Your task to perform on an android device: clear history in the chrome app Image 0: 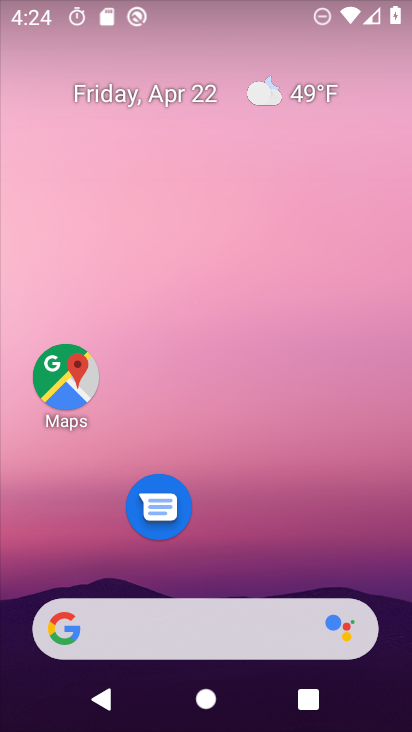
Step 0: drag from (179, 538) to (277, 24)
Your task to perform on an android device: clear history in the chrome app Image 1: 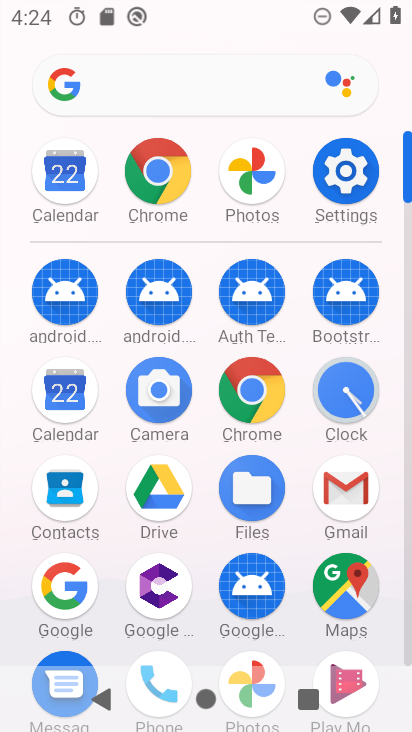
Step 1: click (165, 174)
Your task to perform on an android device: clear history in the chrome app Image 2: 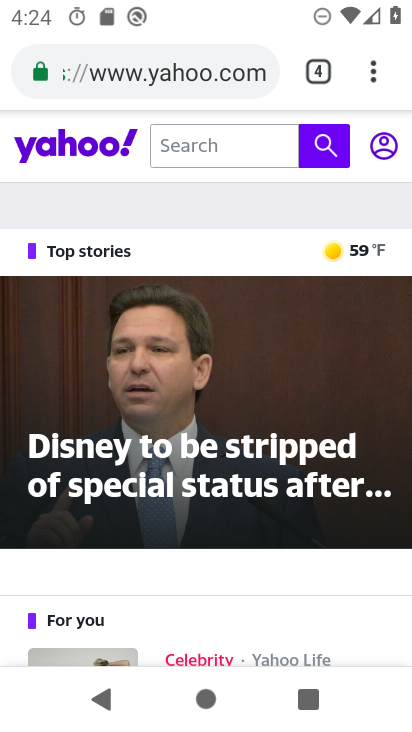
Step 2: drag from (368, 69) to (122, 501)
Your task to perform on an android device: clear history in the chrome app Image 3: 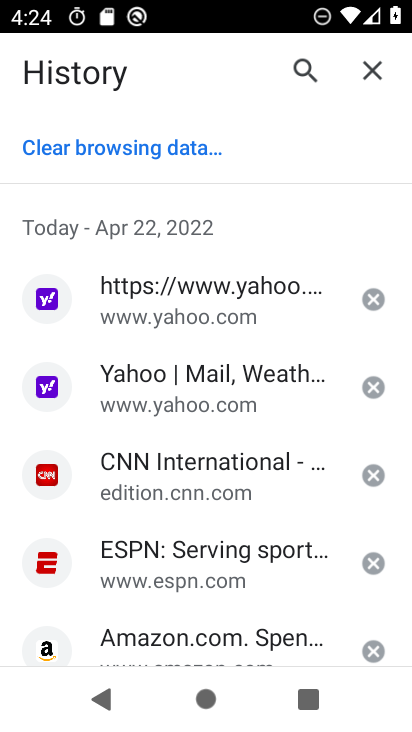
Step 3: click (126, 145)
Your task to perform on an android device: clear history in the chrome app Image 4: 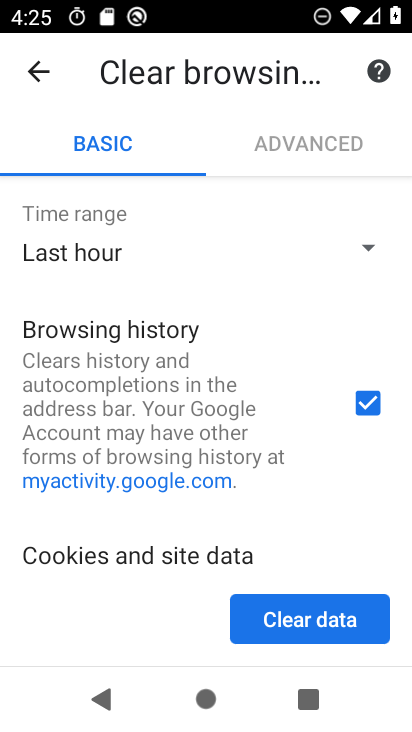
Step 4: click (275, 625)
Your task to perform on an android device: clear history in the chrome app Image 5: 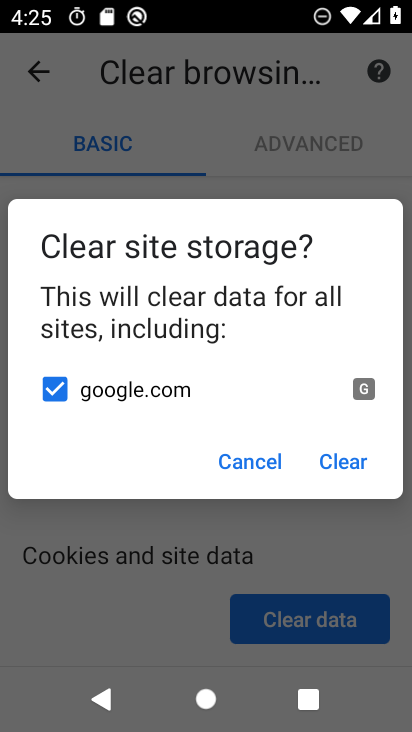
Step 5: click (353, 469)
Your task to perform on an android device: clear history in the chrome app Image 6: 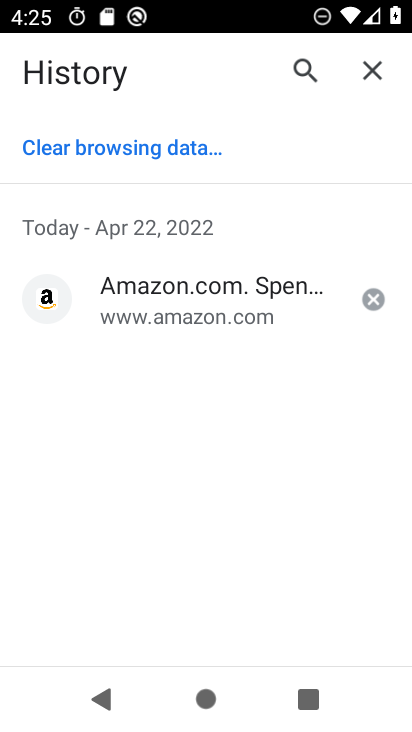
Step 6: task complete